Your task to perform on an android device: Open privacy settings Image 0: 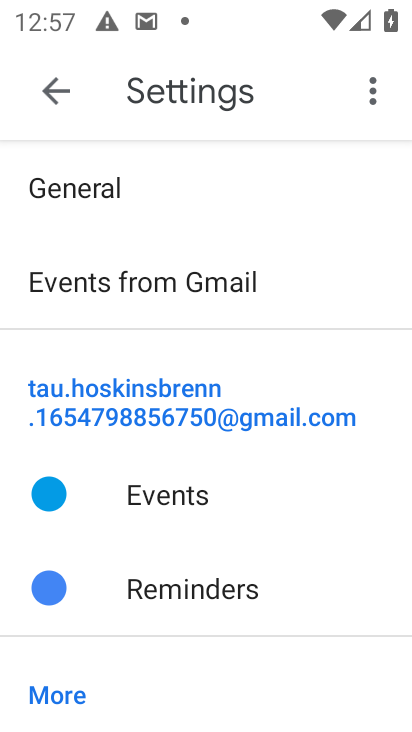
Step 0: press home button
Your task to perform on an android device: Open privacy settings Image 1: 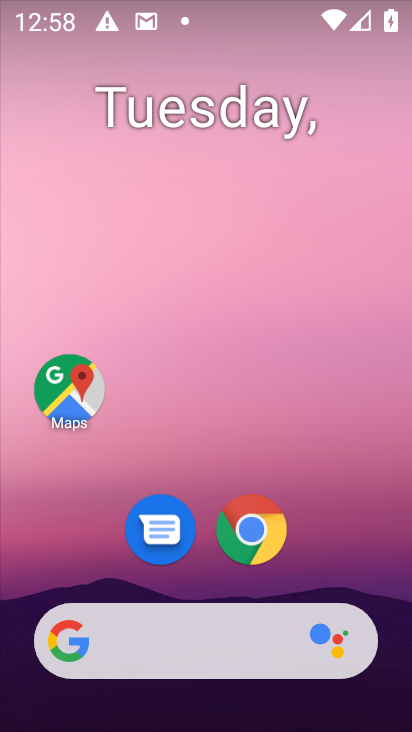
Step 1: task complete